Your task to perform on an android device: Is it going to rain this weekend? Image 0: 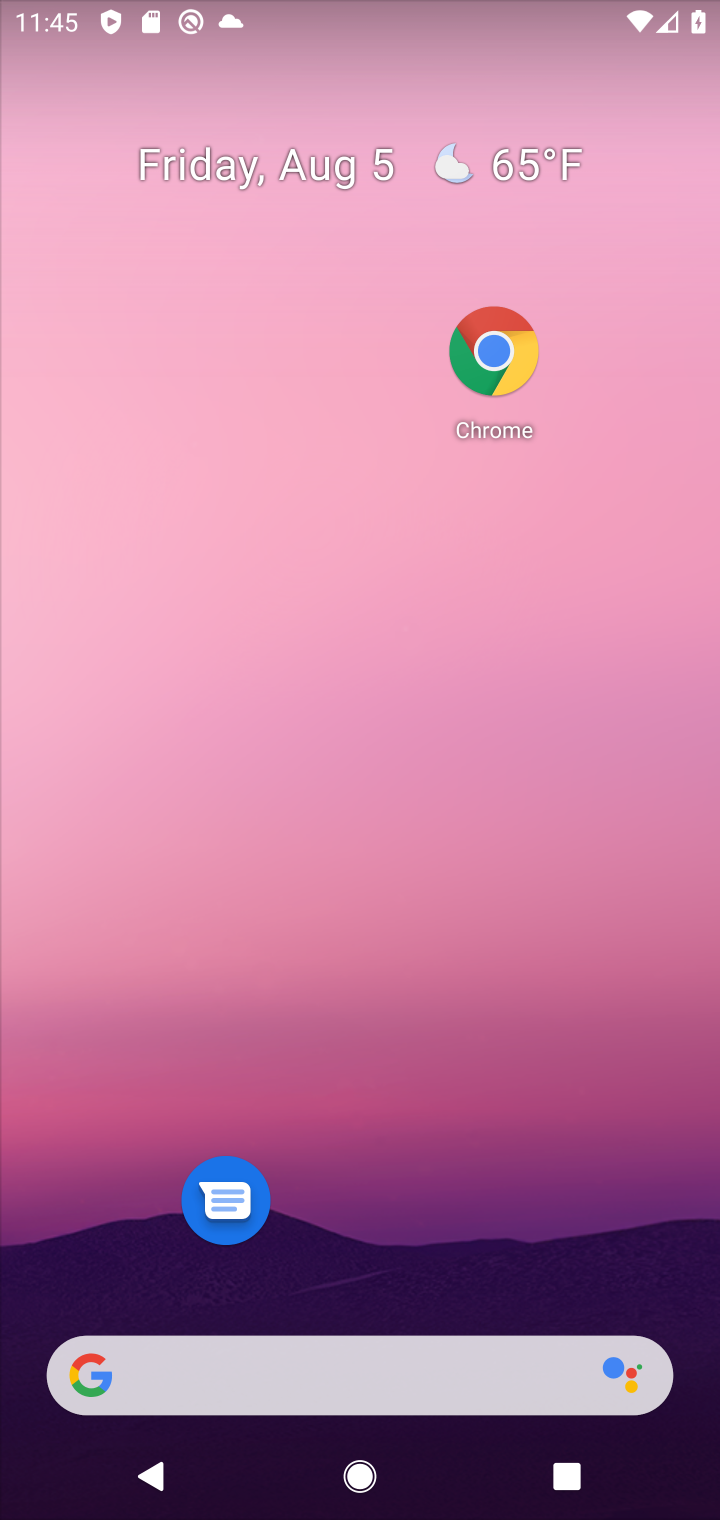
Step 0: drag from (293, 1321) to (546, 221)
Your task to perform on an android device: Is it going to rain this weekend? Image 1: 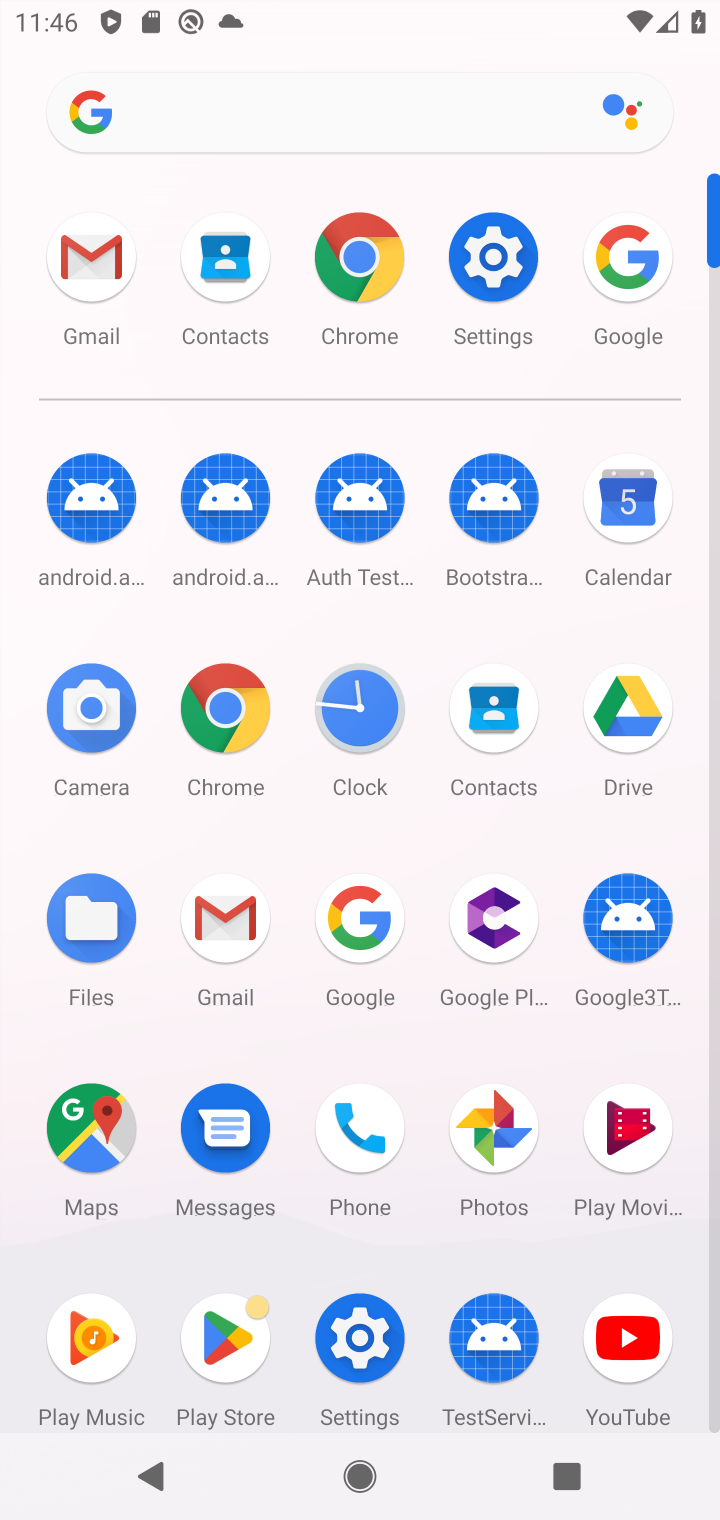
Step 1: click (648, 561)
Your task to perform on an android device: Is it going to rain this weekend? Image 2: 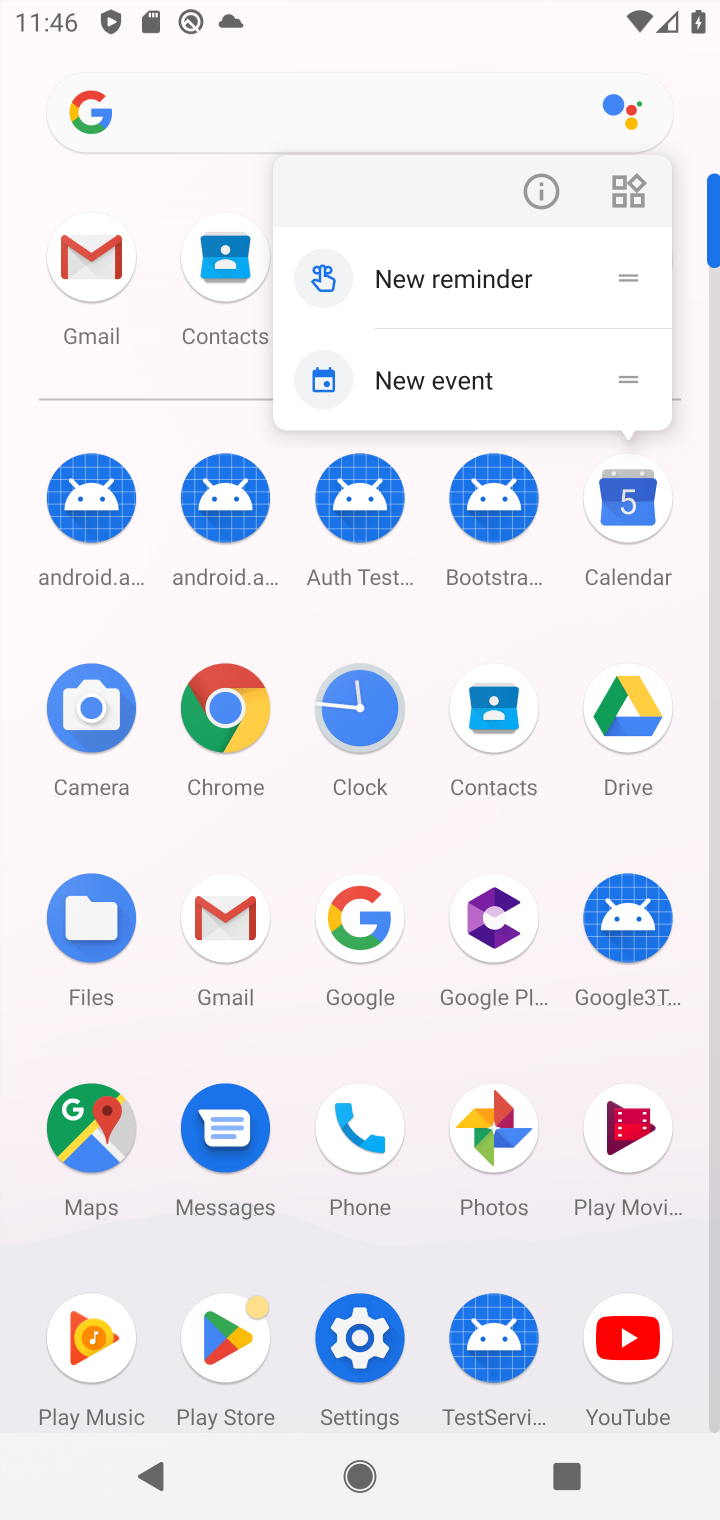
Step 2: click (643, 569)
Your task to perform on an android device: Is it going to rain this weekend? Image 3: 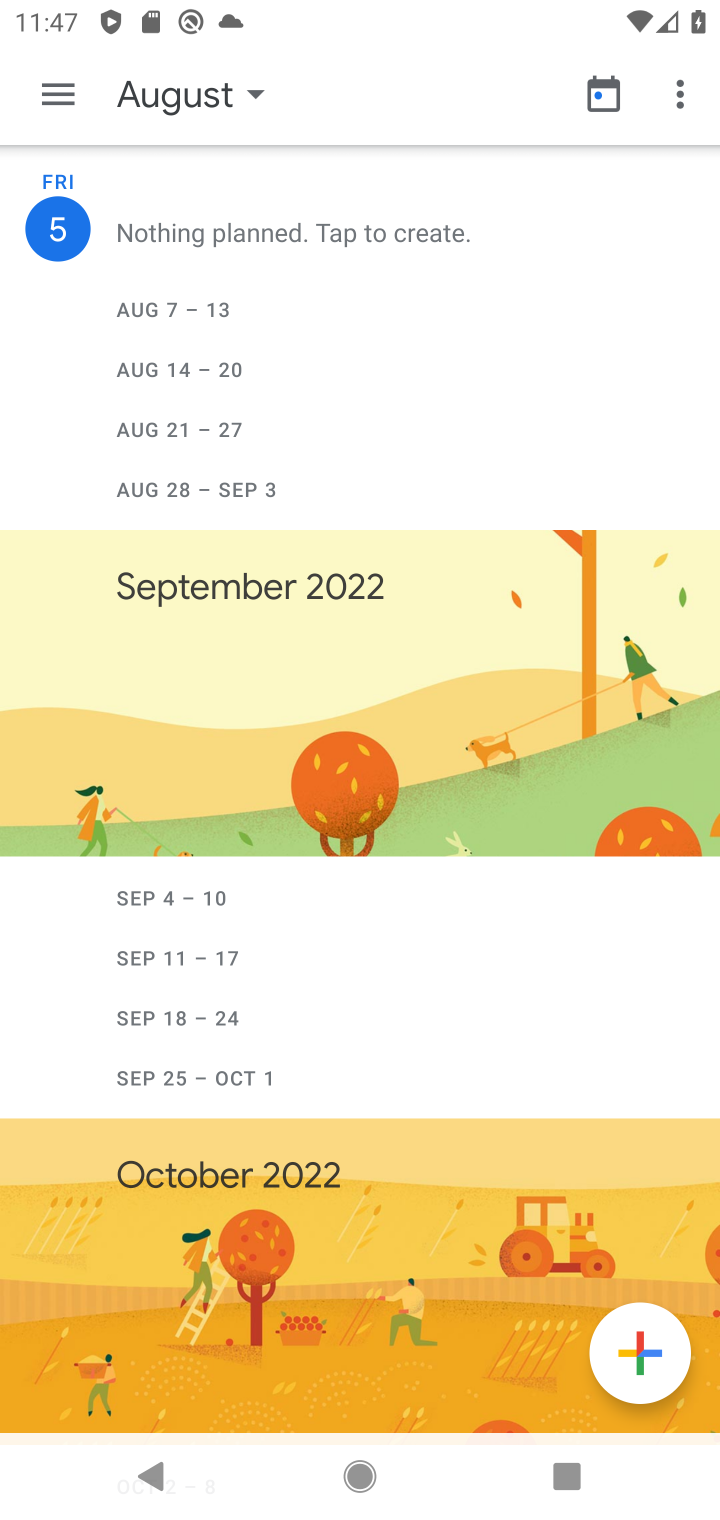
Step 3: drag from (319, 1003) to (319, 781)
Your task to perform on an android device: Is it going to rain this weekend? Image 4: 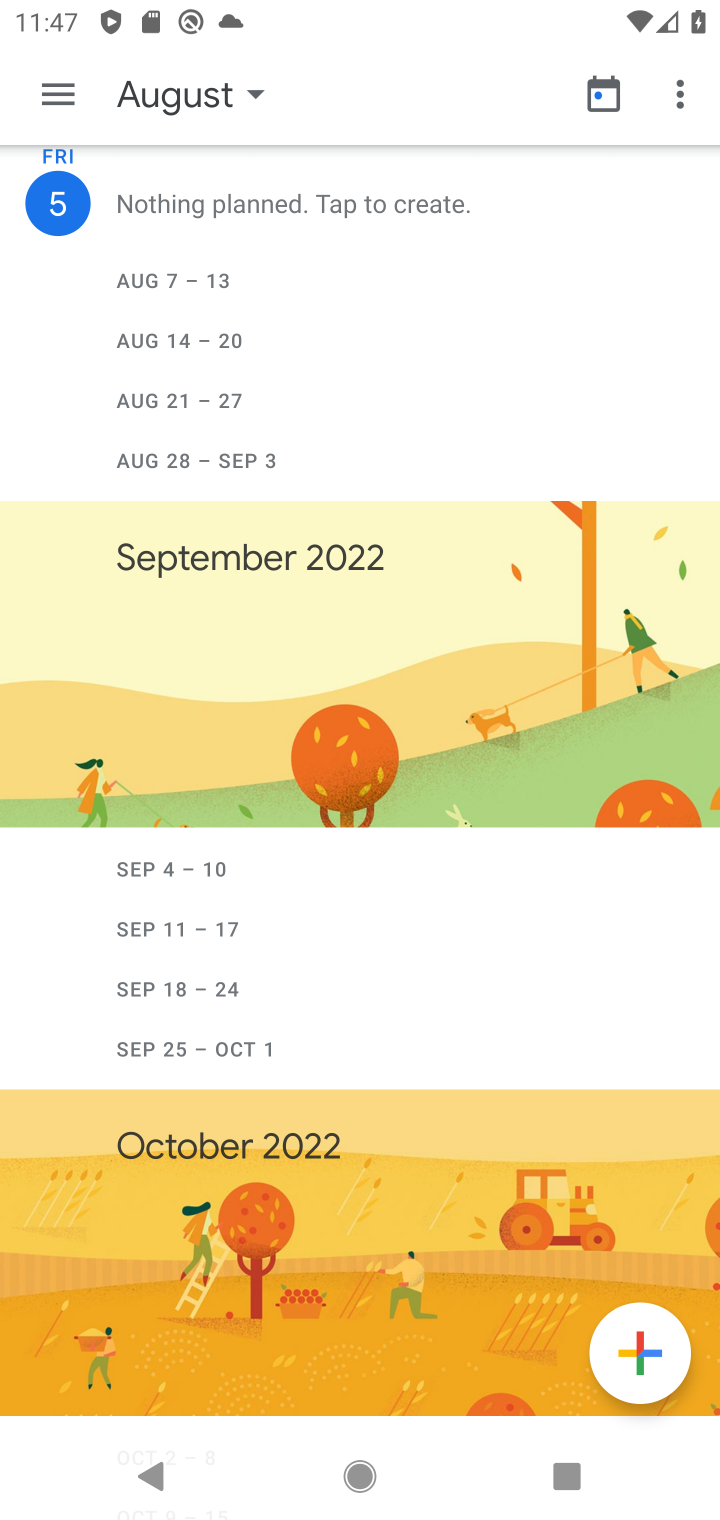
Step 4: click (242, 104)
Your task to perform on an android device: Is it going to rain this weekend? Image 5: 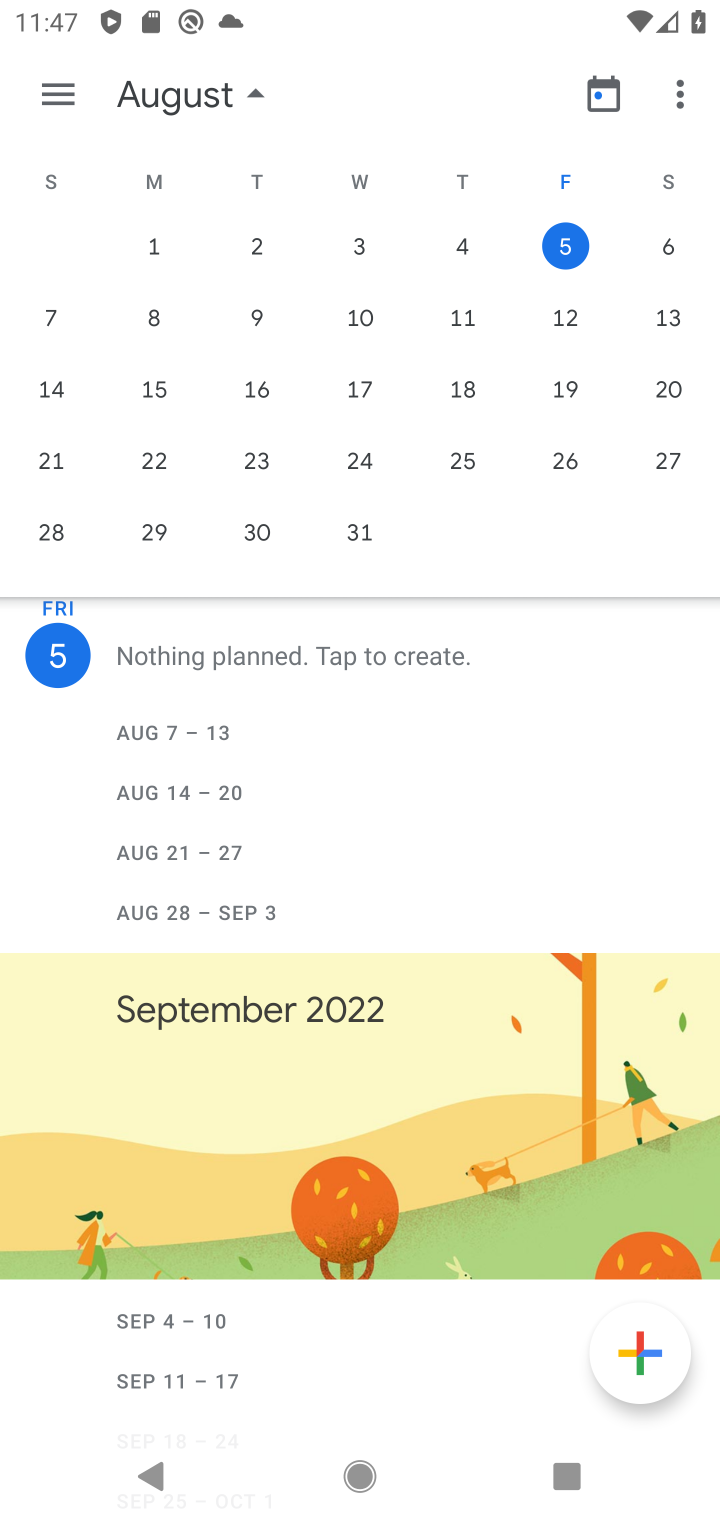
Step 5: click (666, 258)
Your task to perform on an android device: Is it going to rain this weekend? Image 6: 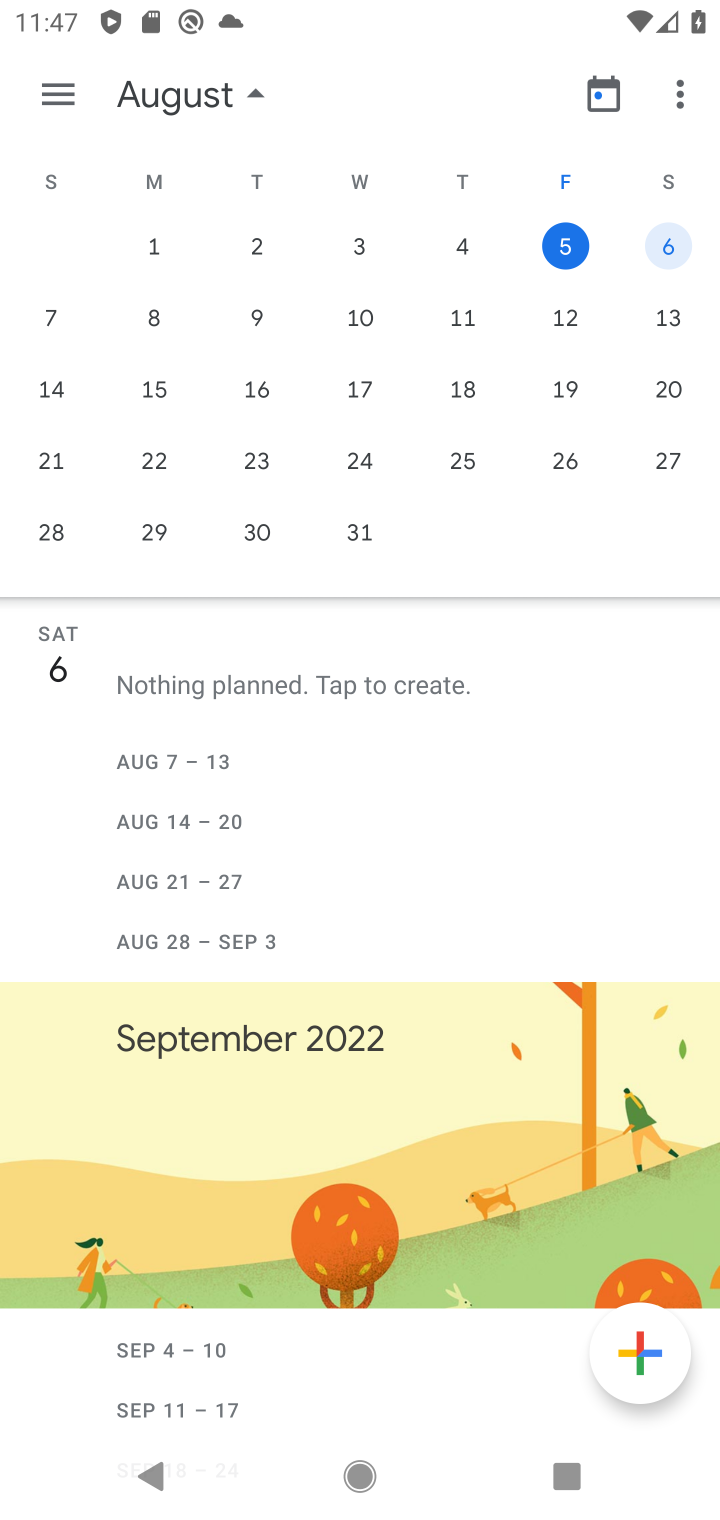
Step 6: task complete